Your task to perform on an android device: open the mobile data screen to see how much data has been used Image 0: 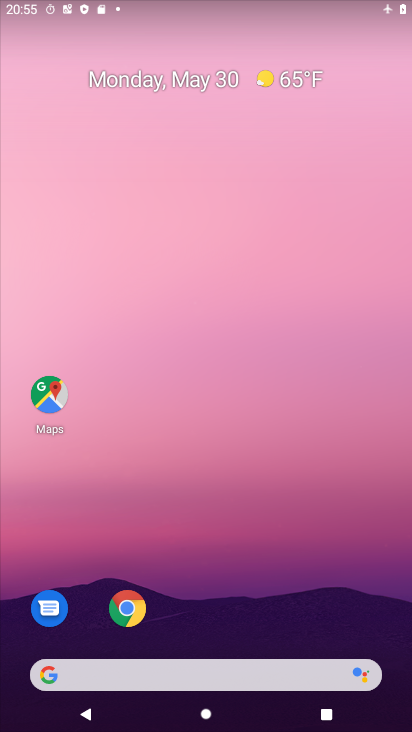
Step 0: drag from (188, 632) to (195, 147)
Your task to perform on an android device: open the mobile data screen to see how much data has been used Image 1: 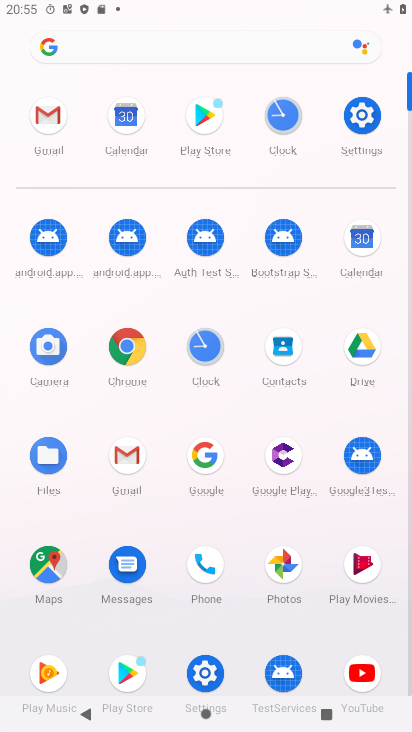
Step 1: click (379, 105)
Your task to perform on an android device: open the mobile data screen to see how much data has been used Image 2: 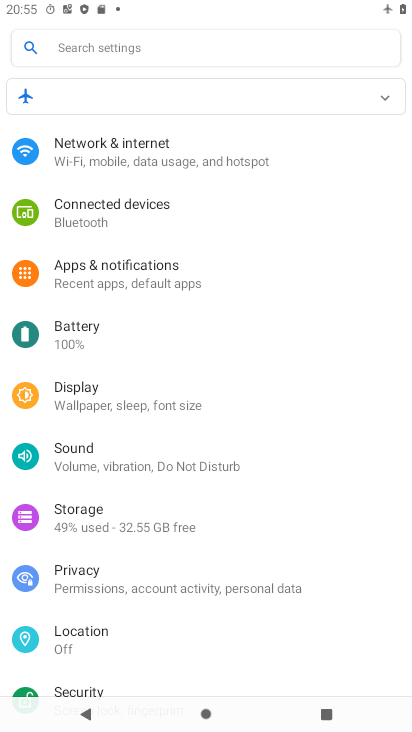
Step 2: click (127, 171)
Your task to perform on an android device: open the mobile data screen to see how much data has been used Image 3: 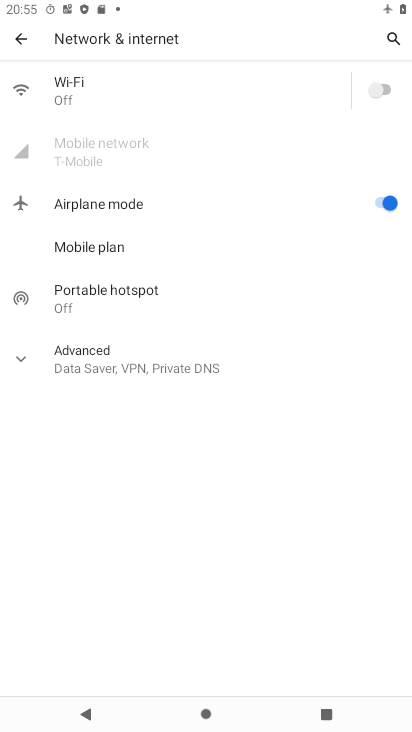
Step 3: click (107, 142)
Your task to perform on an android device: open the mobile data screen to see how much data has been used Image 4: 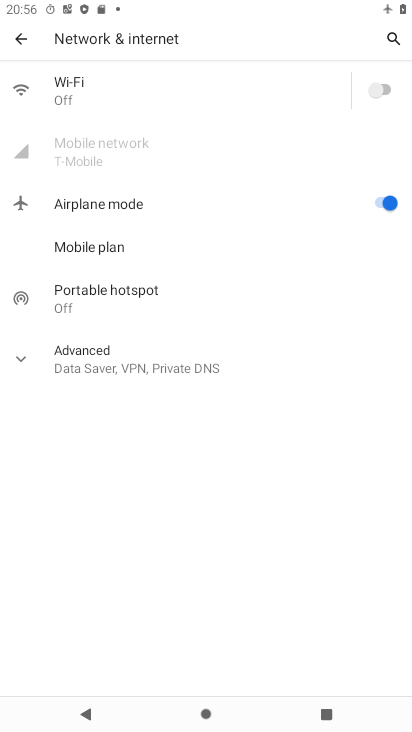
Step 4: task complete